Your task to perform on an android device: turn on translation in the chrome app Image 0: 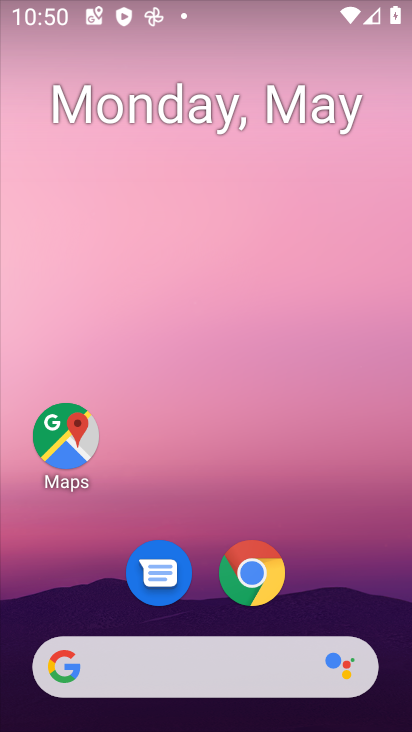
Step 0: click (275, 574)
Your task to perform on an android device: turn on translation in the chrome app Image 1: 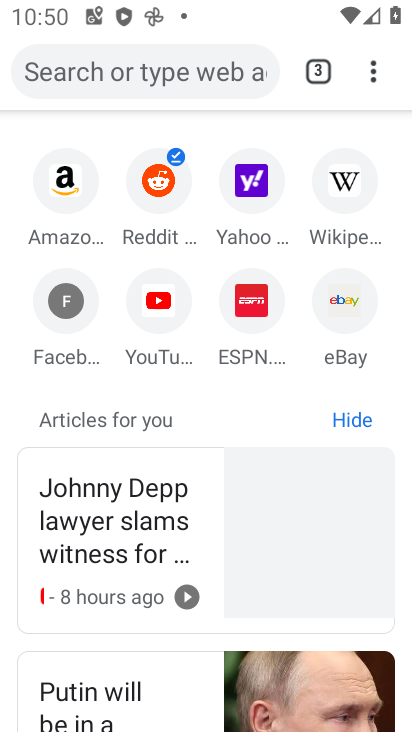
Step 1: click (380, 63)
Your task to perform on an android device: turn on translation in the chrome app Image 2: 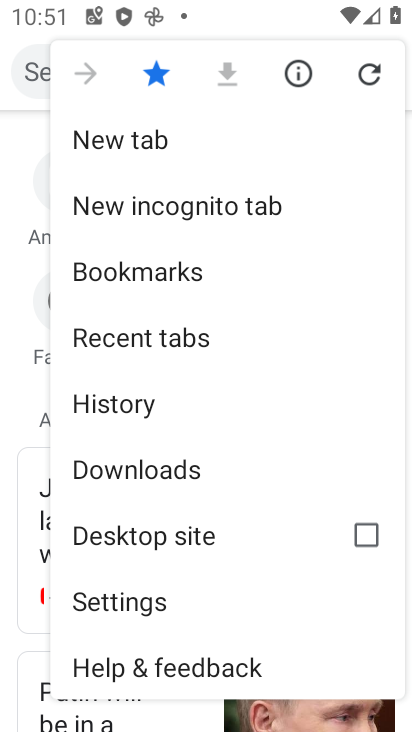
Step 2: click (168, 599)
Your task to perform on an android device: turn on translation in the chrome app Image 3: 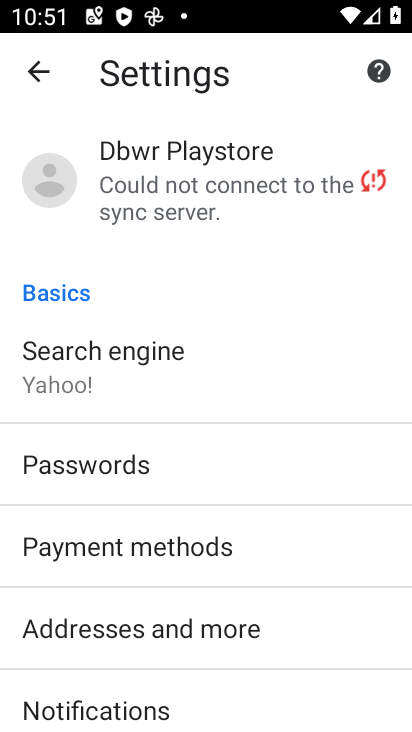
Step 3: drag from (227, 598) to (298, 200)
Your task to perform on an android device: turn on translation in the chrome app Image 4: 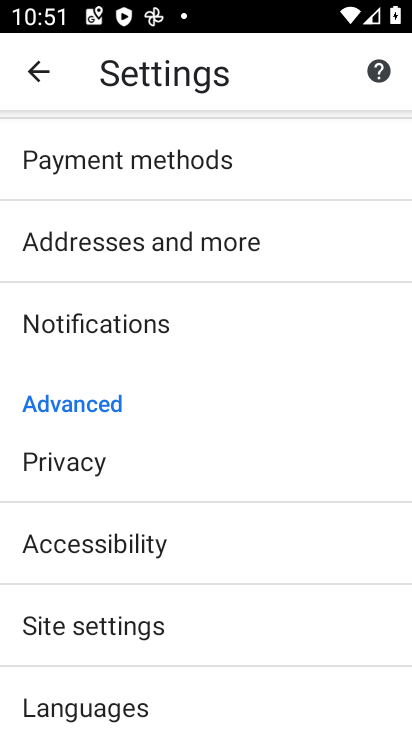
Step 4: click (198, 648)
Your task to perform on an android device: turn on translation in the chrome app Image 5: 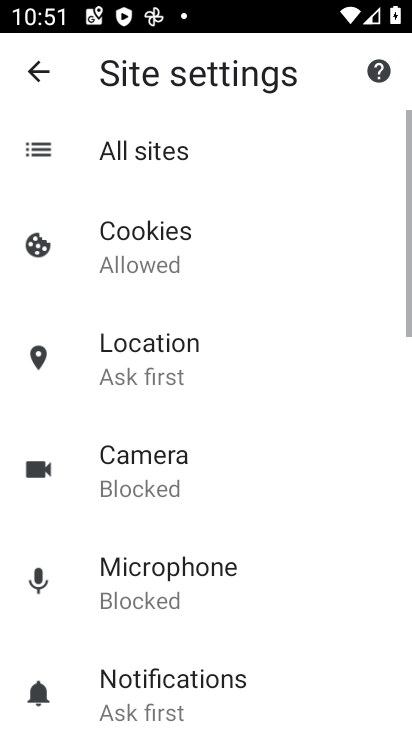
Step 5: task complete